Your task to perform on an android device: change keyboard looks Image 0: 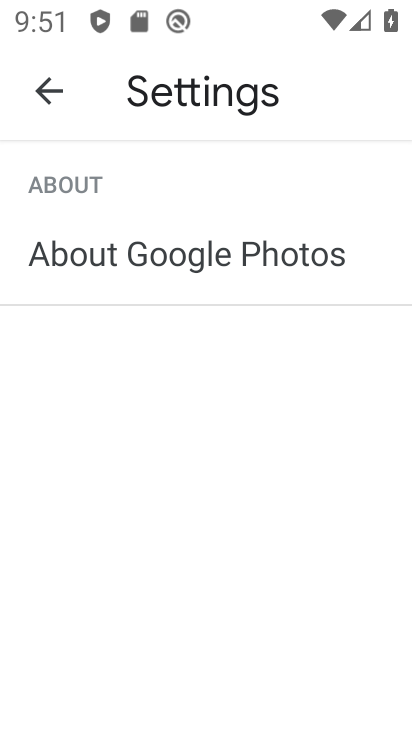
Step 0: press home button
Your task to perform on an android device: change keyboard looks Image 1: 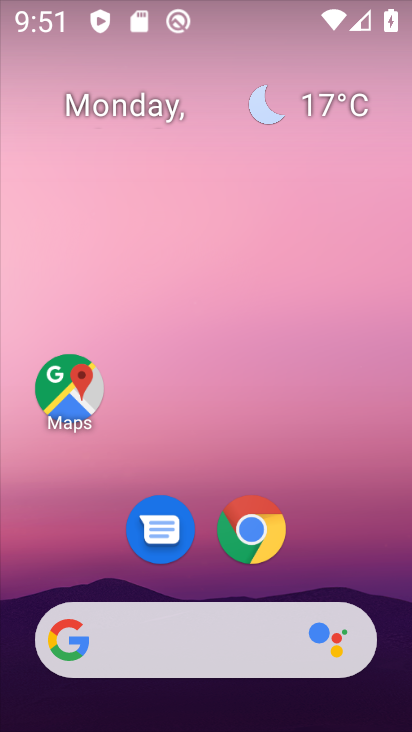
Step 1: drag from (297, 440) to (306, 70)
Your task to perform on an android device: change keyboard looks Image 2: 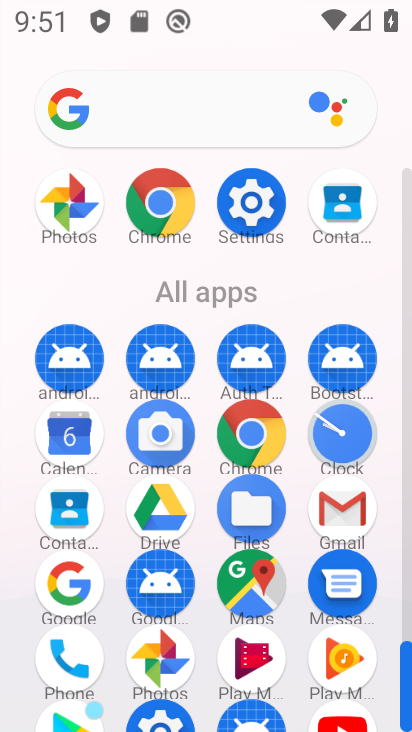
Step 2: click (258, 206)
Your task to perform on an android device: change keyboard looks Image 3: 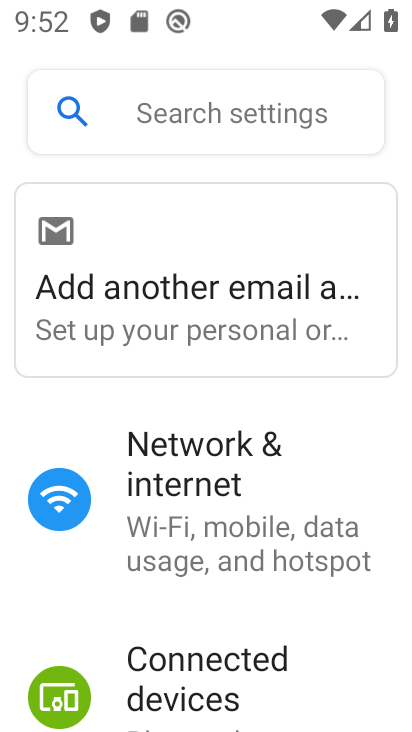
Step 3: drag from (260, 637) to (197, 213)
Your task to perform on an android device: change keyboard looks Image 4: 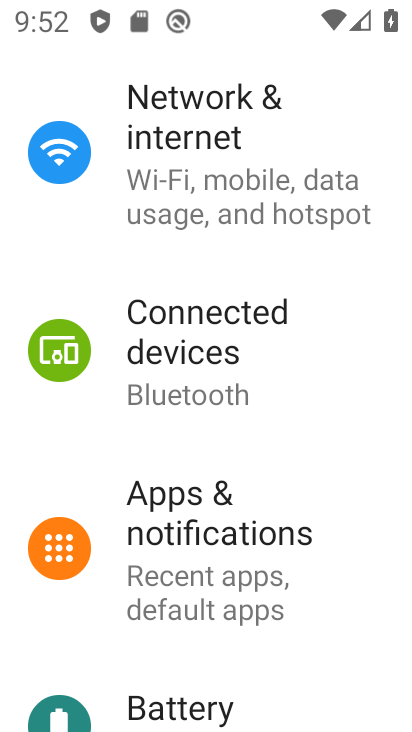
Step 4: drag from (232, 627) to (192, 234)
Your task to perform on an android device: change keyboard looks Image 5: 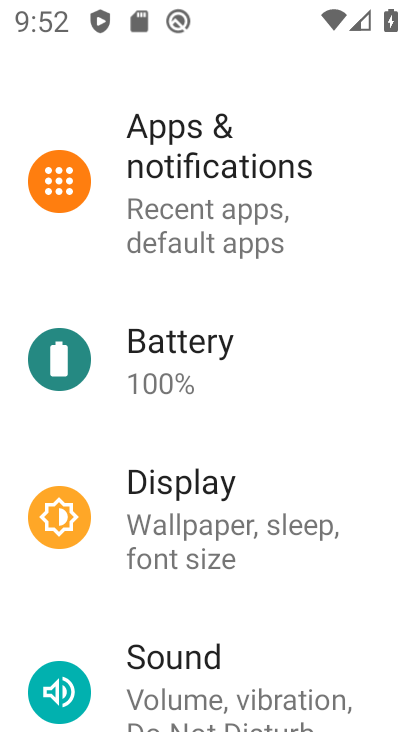
Step 5: drag from (219, 551) to (199, 108)
Your task to perform on an android device: change keyboard looks Image 6: 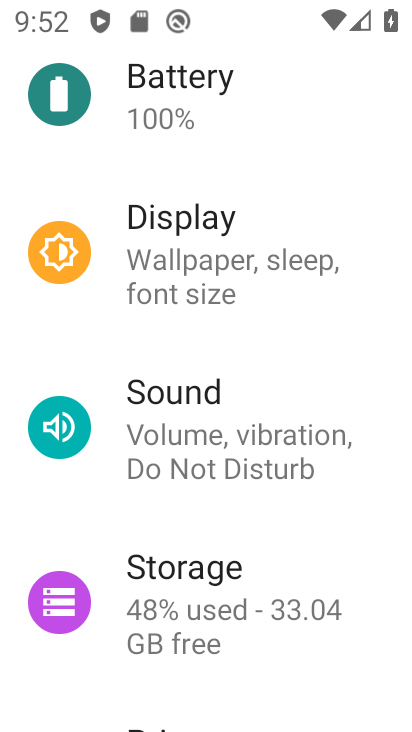
Step 6: drag from (233, 643) to (199, 86)
Your task to perform on an android device: change keyboard looks Image 7: 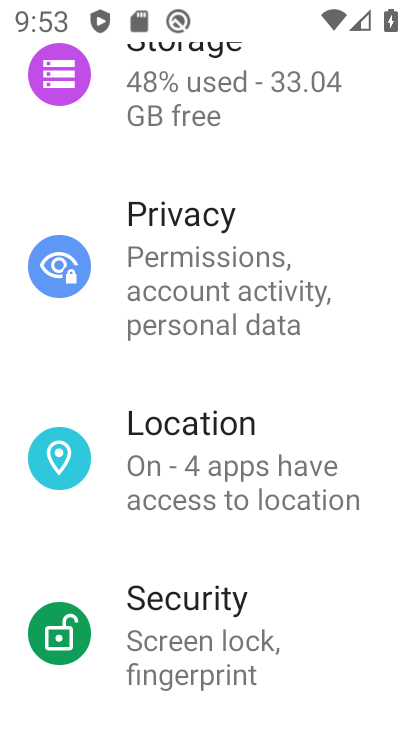
Step 7: drag from (245, 551) to (216, 76)
Your task to perform on an android device: change keyboard looks Image 8: 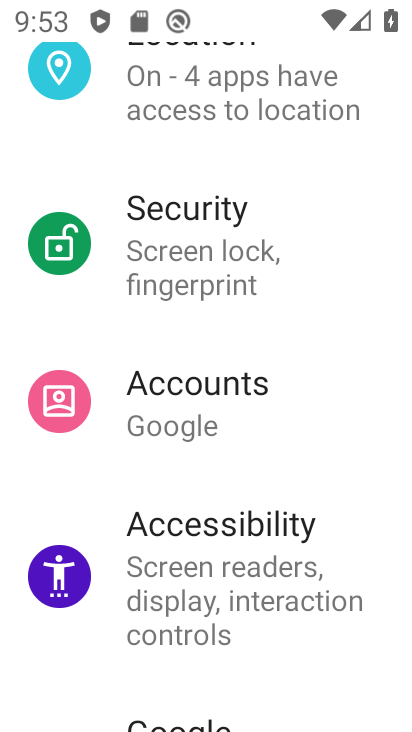
Step 8: drag from (227, 602) to (229, 86)
Your task to perform on an android device: change keyboard looks Image 9: 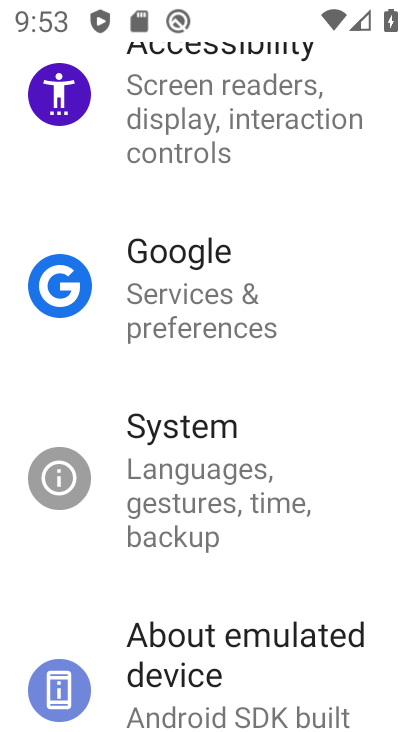
Step 9: click (239, 493)
Your task to perform on an android device: change keyboard looks Image 10: 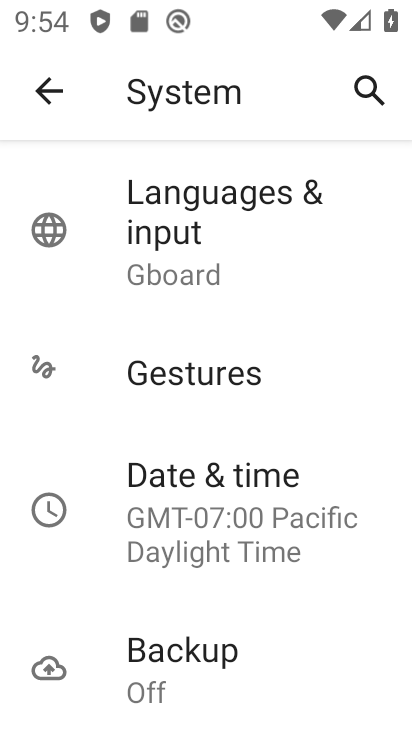
Step 10: click (245, 257)
Your task to perform on an android device: change keyboard looks Image 11: 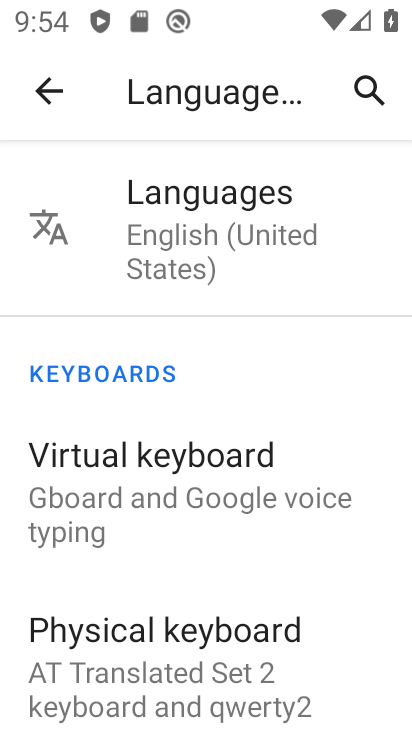
Step 11: click (122, 472)
Your task to perform on an android device: change keyboard looks Image 12: 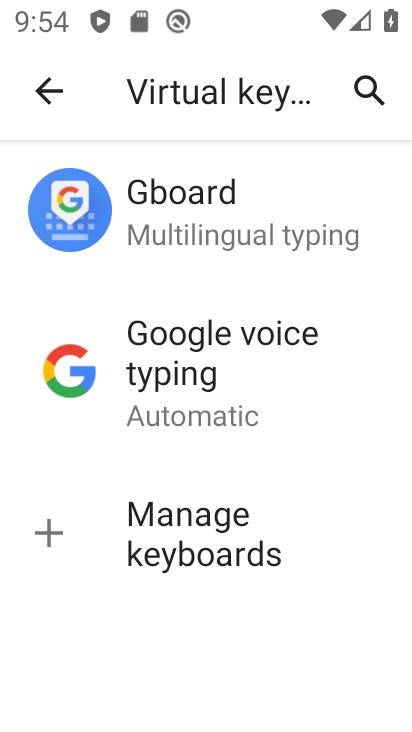
Step 12: click (176, 216)
Your task to perform on an android device: change keyboard looks Image 13: 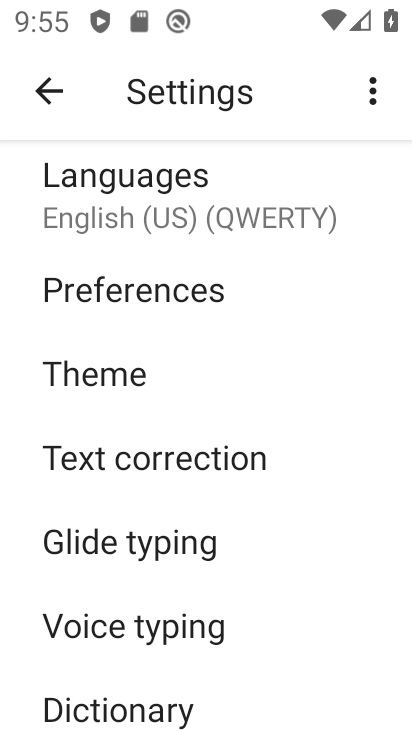
Step 13: click (132, 357)
Your task to perform on an android device: change keyboard looks Image 14: 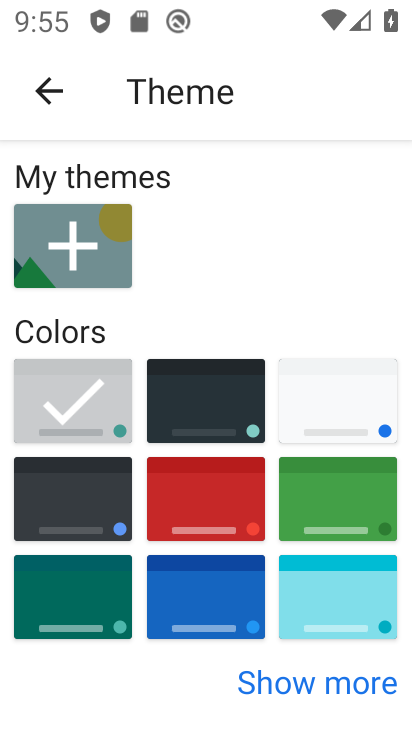
Step 14: click (222, 477)
Your task to perform on an android device: change keyboard looks Image 15: 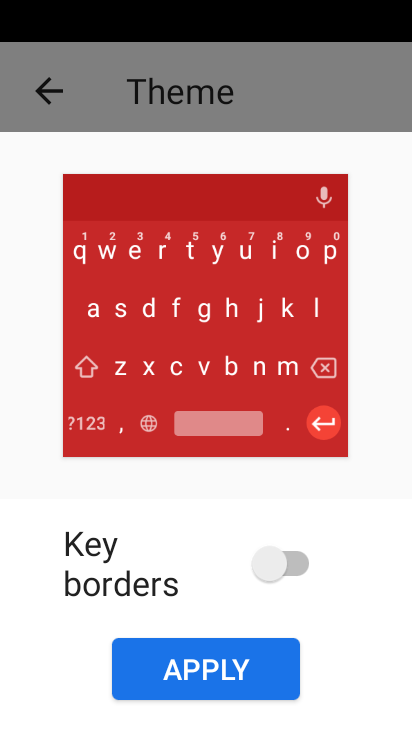
Step 15: click (182, 677)
Your task to perform on an android device: change keyboard looks Image 16: 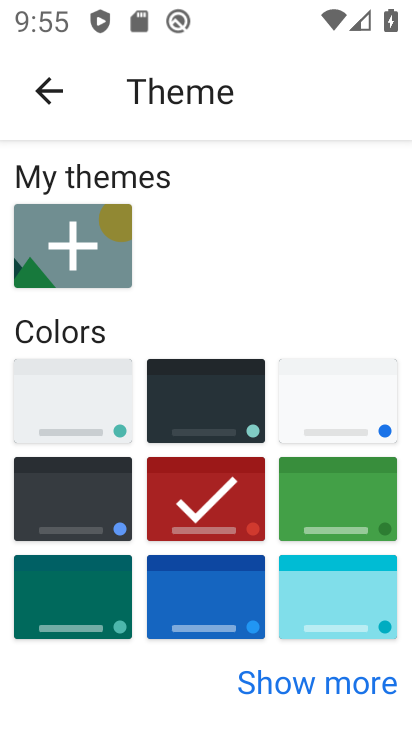
Step 16: task complete